Your task to perform on an android device: toggle notification dots Image 0: 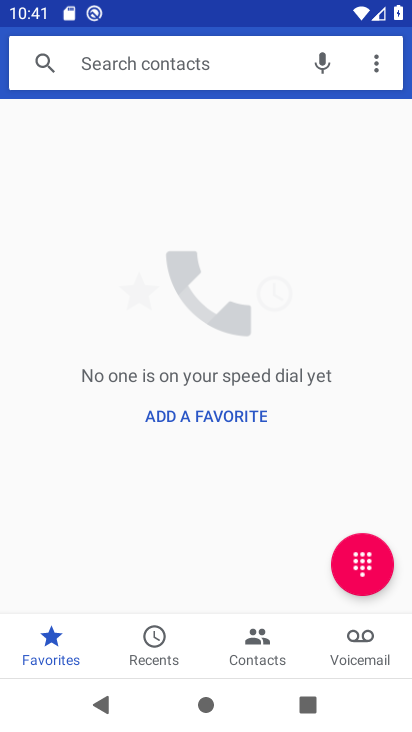
Step 0: press home button
Your task to perform on an android device: toggle notification dots Image 1: 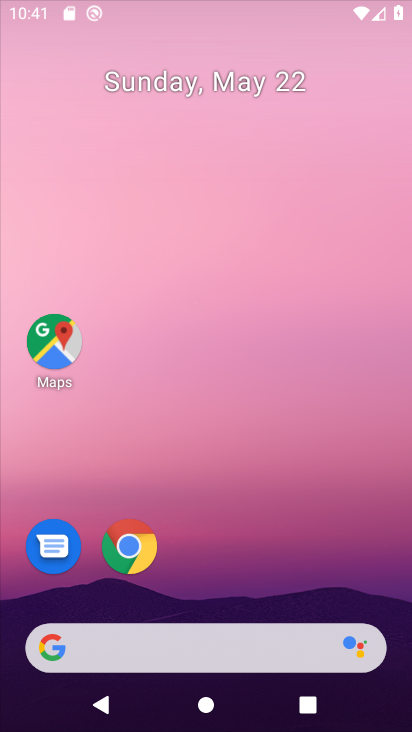
Step 1: drag from (199, 648) to (219, 110)
Your task to perform on an android device: toggle notification dots Image 2: 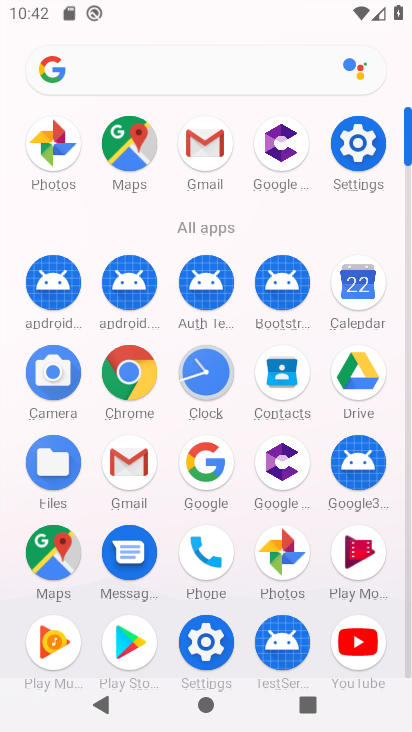
Step 2: click (345, 150)
Your task to perform on an android device: toggle notification dots Image 3: 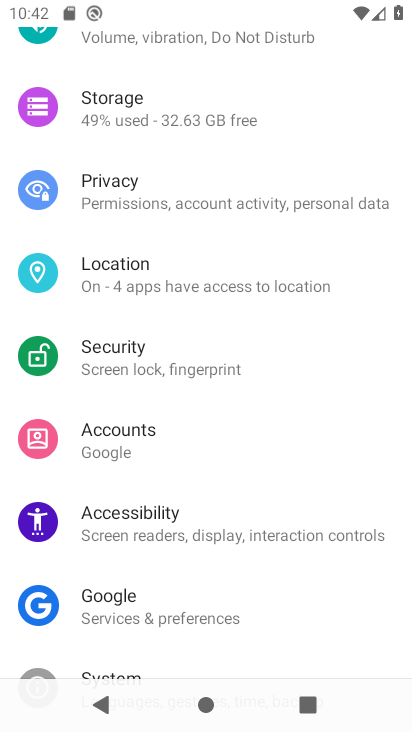
Step 3: drag from (226, 223) to (172, 624)
Your task to perform on an android device: toggle notification dots Image 4: 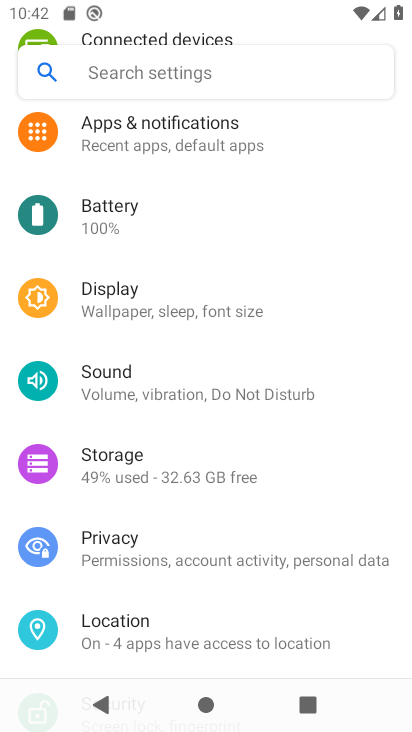
Step 4: drag from (182, 268) to (166, 535)
Your task to perform on an android device: toggle notification dots Image 5: 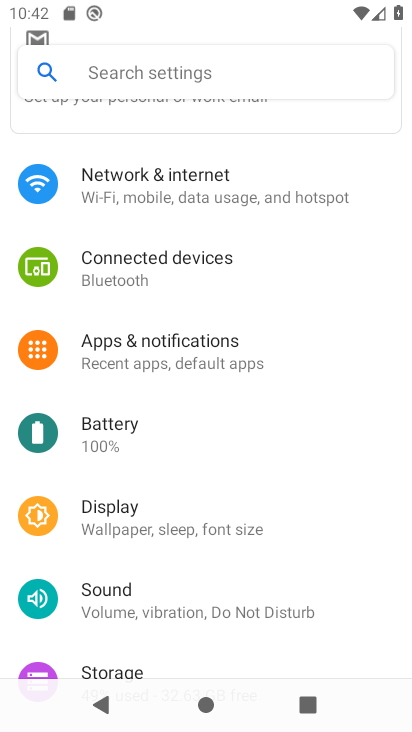
Step 5: click (190, 353)
Your task to perform on an android device: toggle notification dots Image 6: 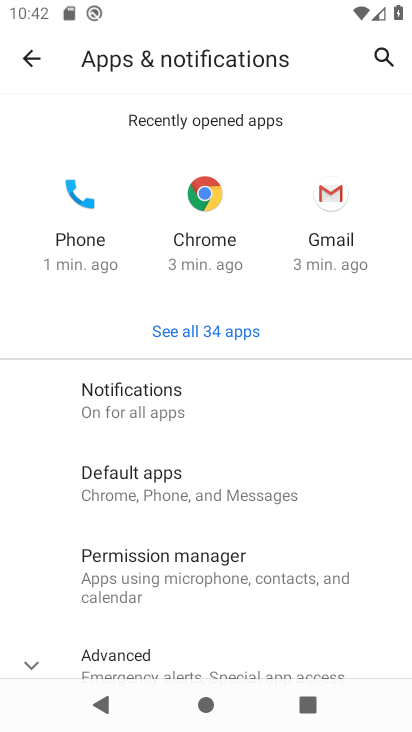
Step 6: click (199, 407)
Your task to perform on an android device: toggle notification dots Image 7: 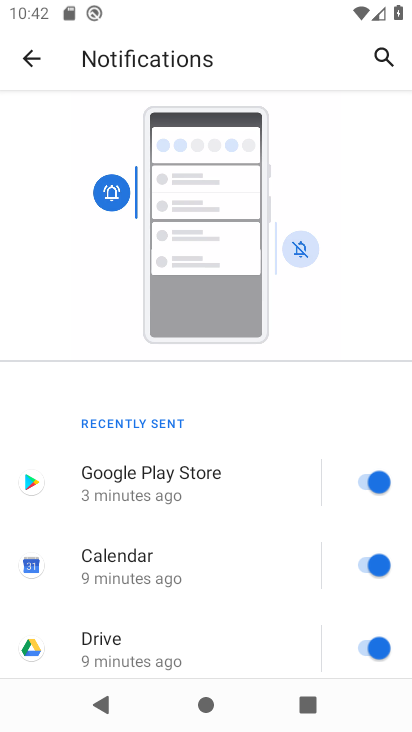
Step 7: drag from (215, 544) to (279, 108)
Your task to perform on an android device: toggle notification dots Image 8: 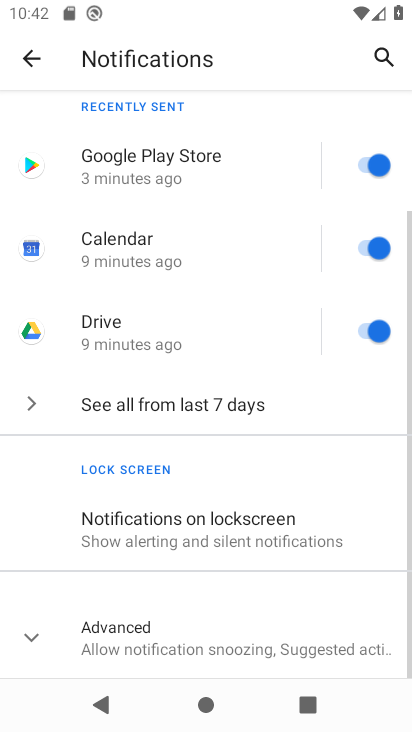
Step 8: drag from (247, 521) to (329, 129)
Your task to perform on an android device: toggle notification dots Image 9: 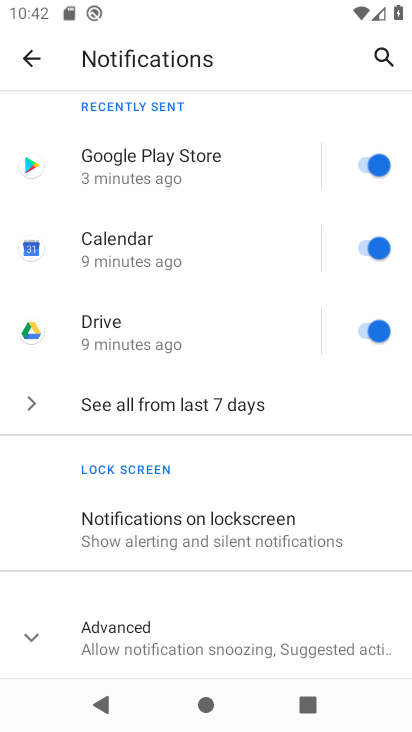
Step 9: click (248, 631)
Your task to perform on an android device: toggle notification dots Image 10: 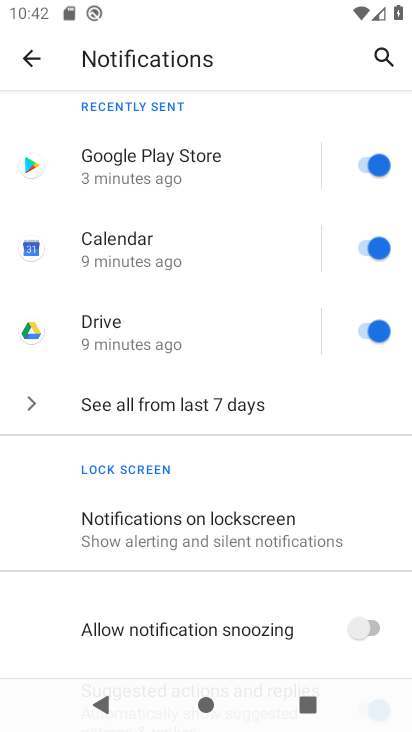
Step 10: drag from (255, 516) to (317, 199)
Your task to perform on an android device: toggle notification dots Image 11: 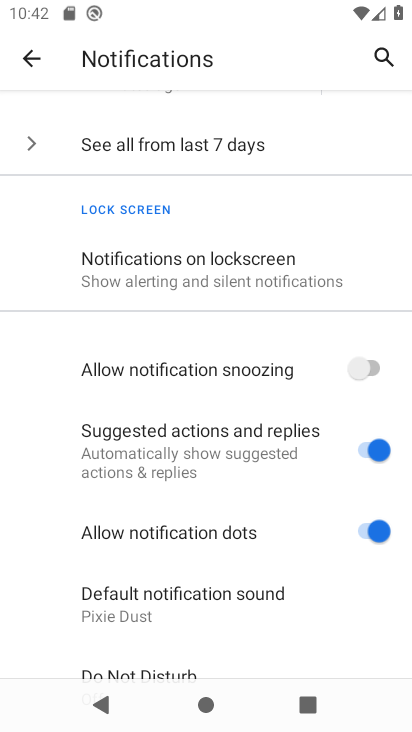
Step 11: drag from (265, 586) to (301, 371)
Your task to perform on an android device: toggle notification dots Image 12: 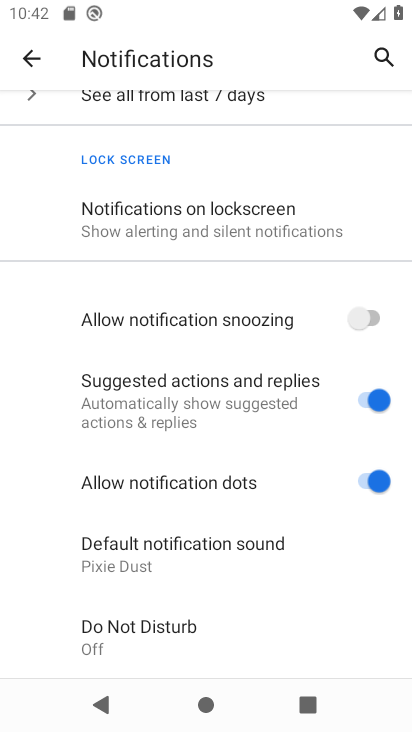
Step 12: click (375, 478)
Your task to perform on an android device: toggle notification dots Image 13: 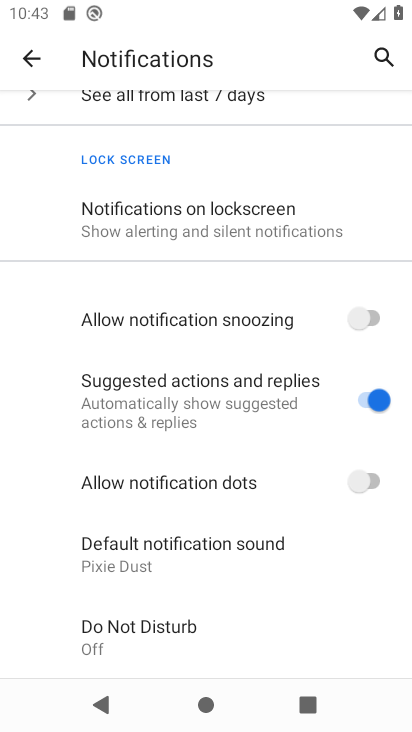
Step 13: task complete